Your task to perform on an android device: visit the assistant section in the google photos Image 0: 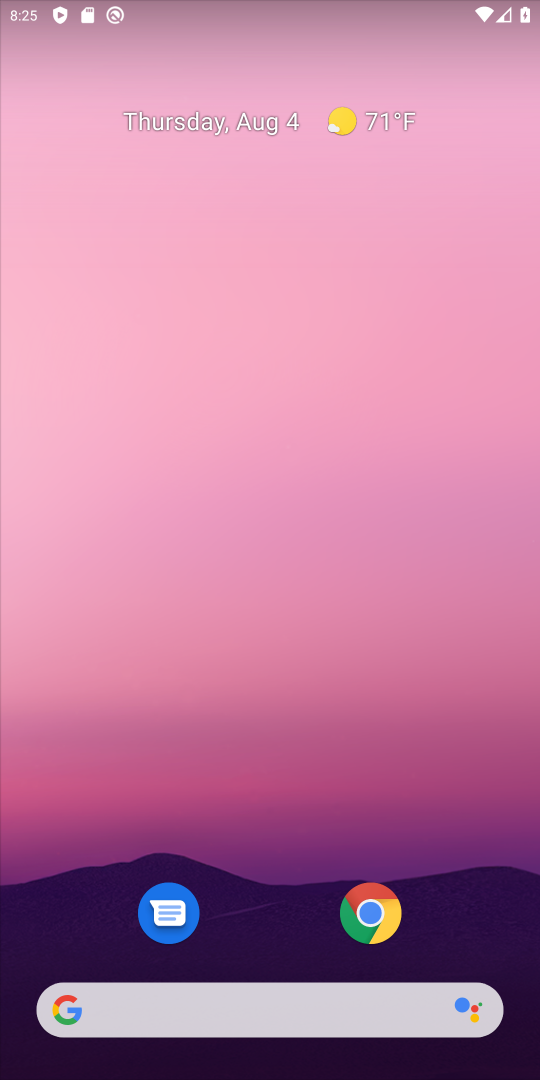
Step 0: drag from (282, 151) to (282, 62)
Your task to perform on an android device: visit the assistant section in the google photos Image 1: 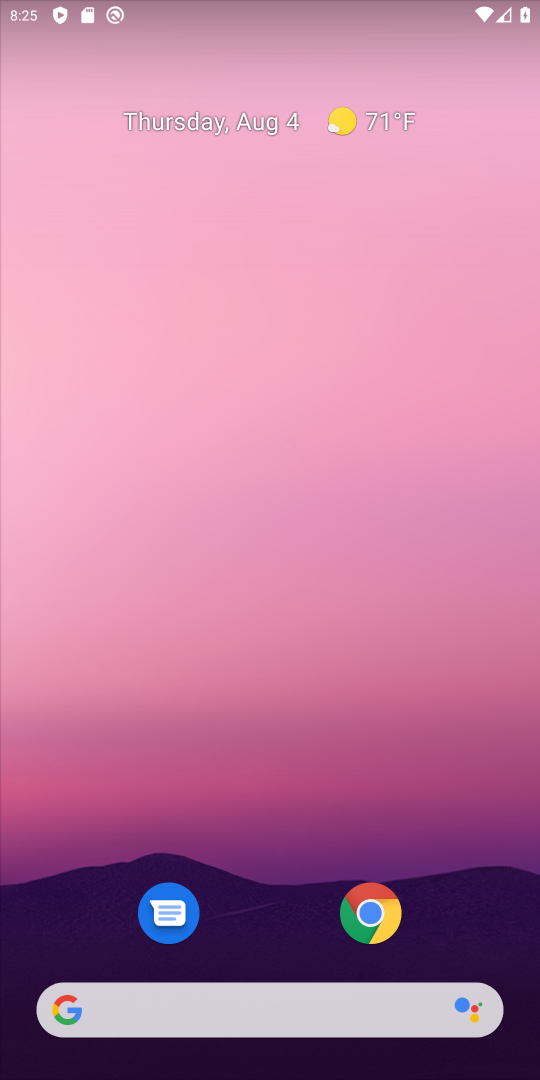
Step 1: drag from (293, 946) to (255, 27)
Your task to perform on an android device: visit the assistant section in the google photos Image 2: 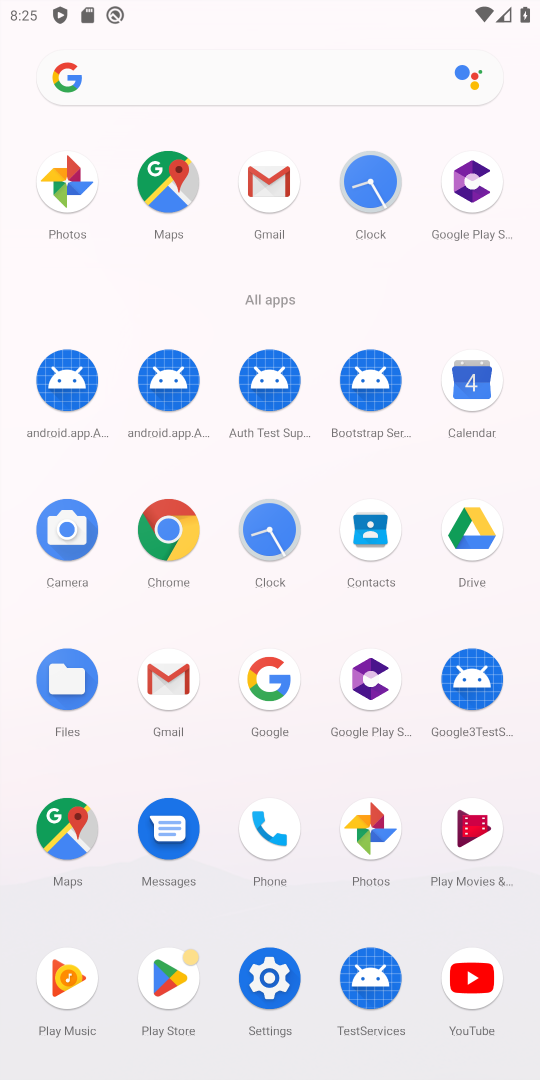
Step 2: click (374, 821)
Your task to perform on an android device: visit the assistant section in the google photos Image 3: 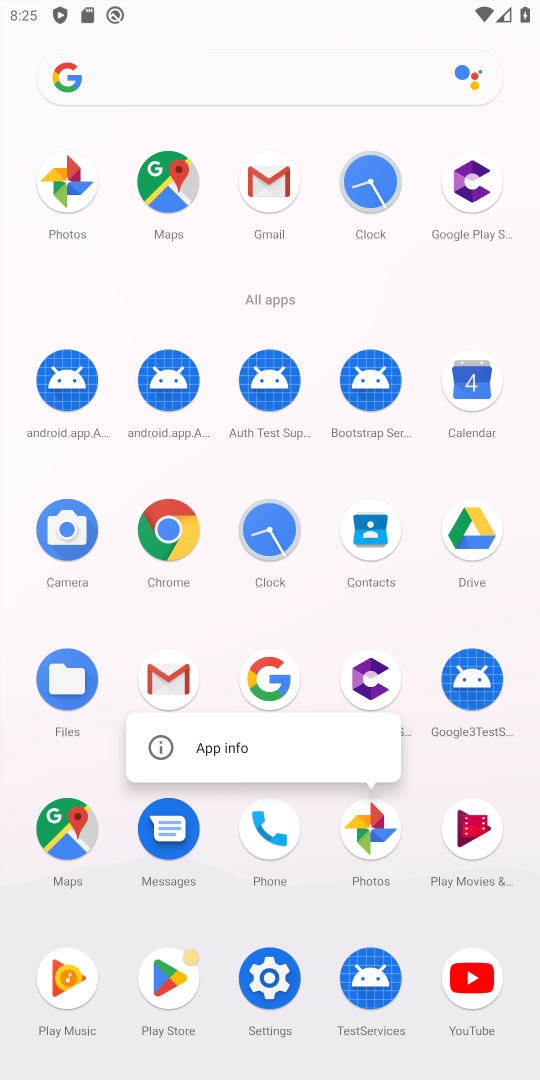
Step 3: click (288, 757)
Your task to perform on an android device: visit the assistant section in the google photos Image 4: 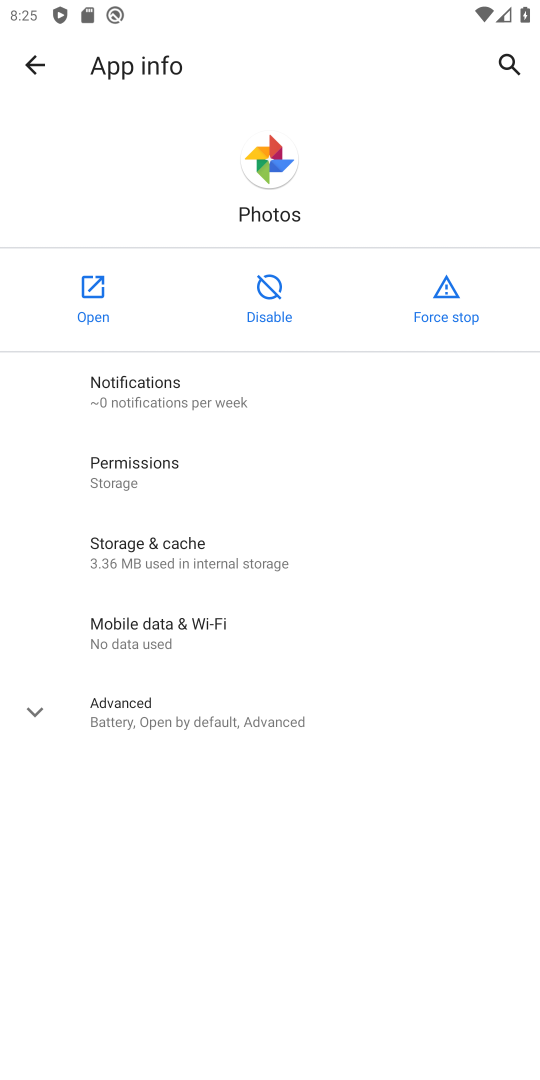
Step 4: click (78, 286)
Your task to perform on an android device: visit the assistant section in the google photos Image 5: 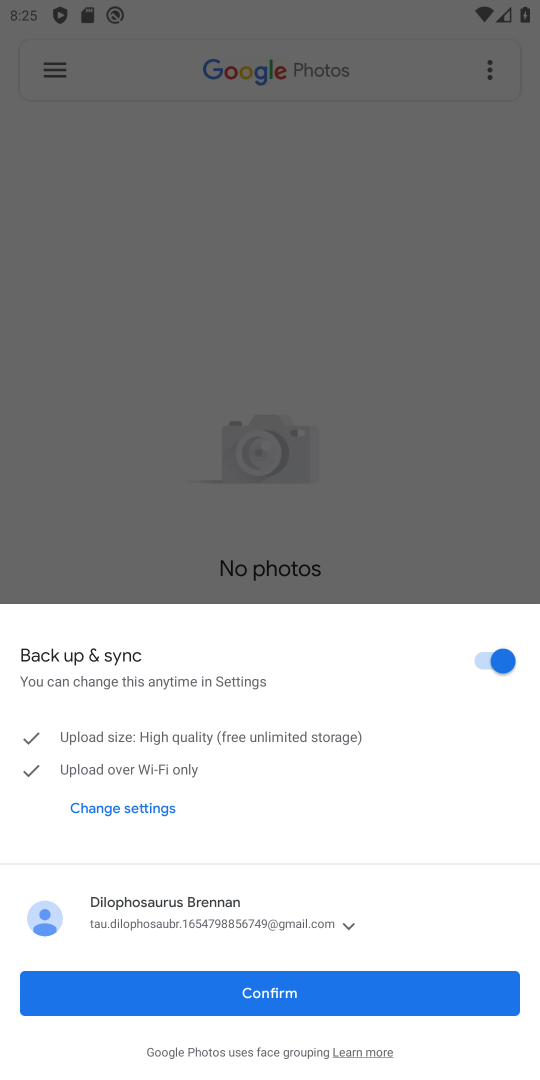
Step 5: click (252, 330)
Your task to perform on an android device: visit the assistant section in the google photos Image 6: 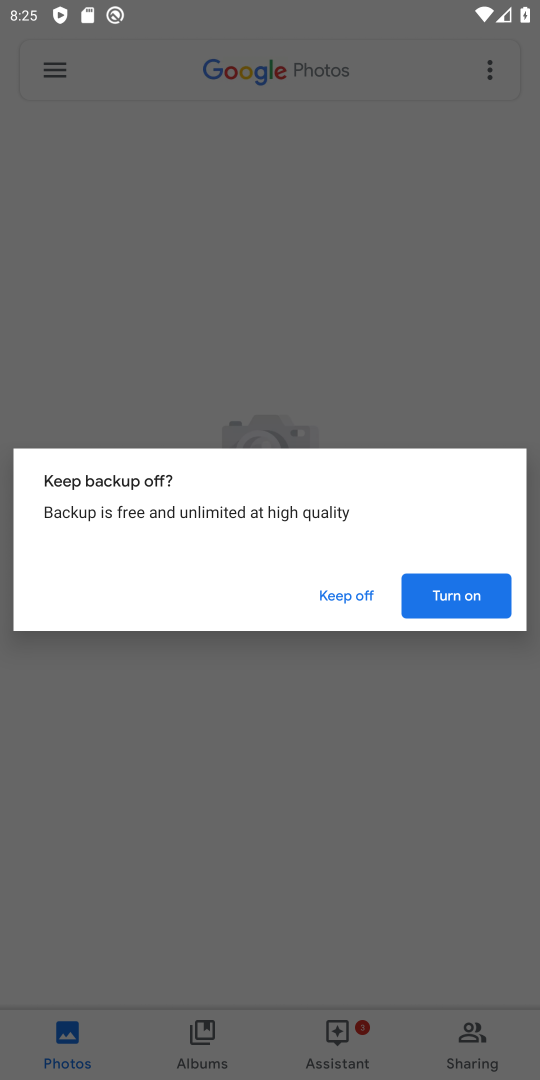
Step 6: click (427, 595)
Your task to perform on an android device: visit the assistant section in the google photos Image 7: 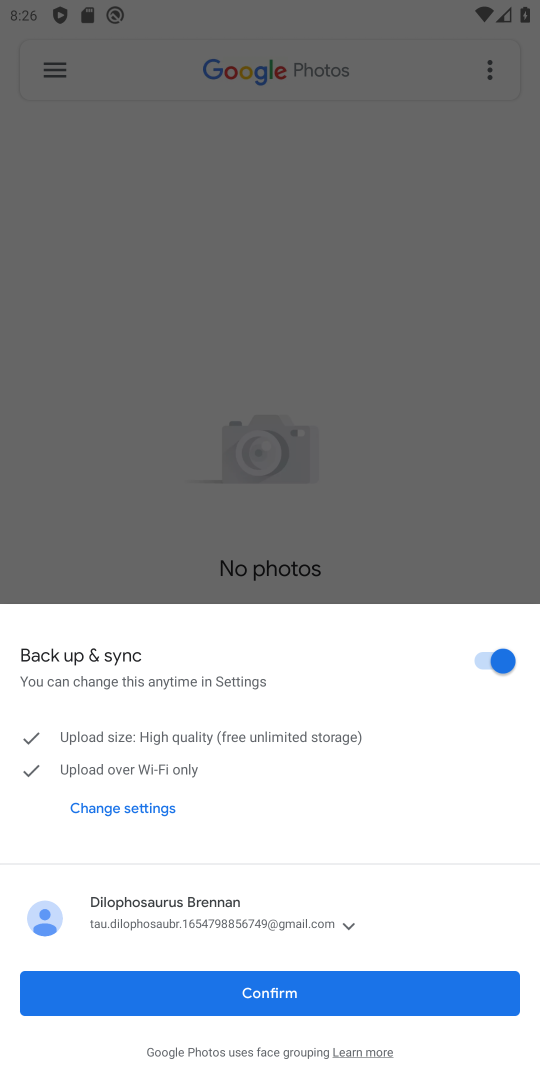
Step 7: click (246, 975)
Your task to perform on an android device: visit the assistant section in the google photos Image 8: 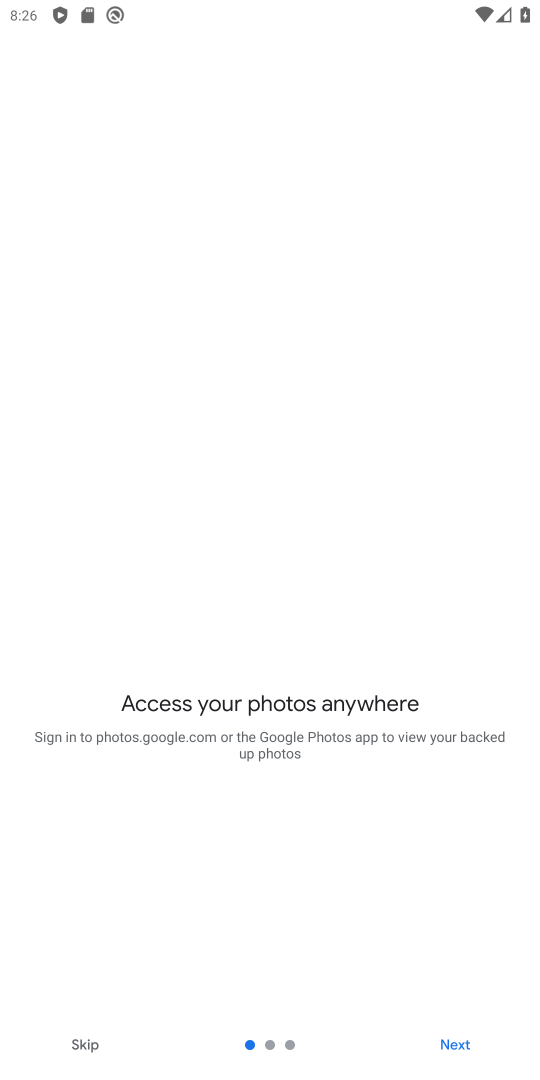
Step 8: click (92, 1035)
Your task to perform on an android device: visit the assistant section in the google photos Image 9: 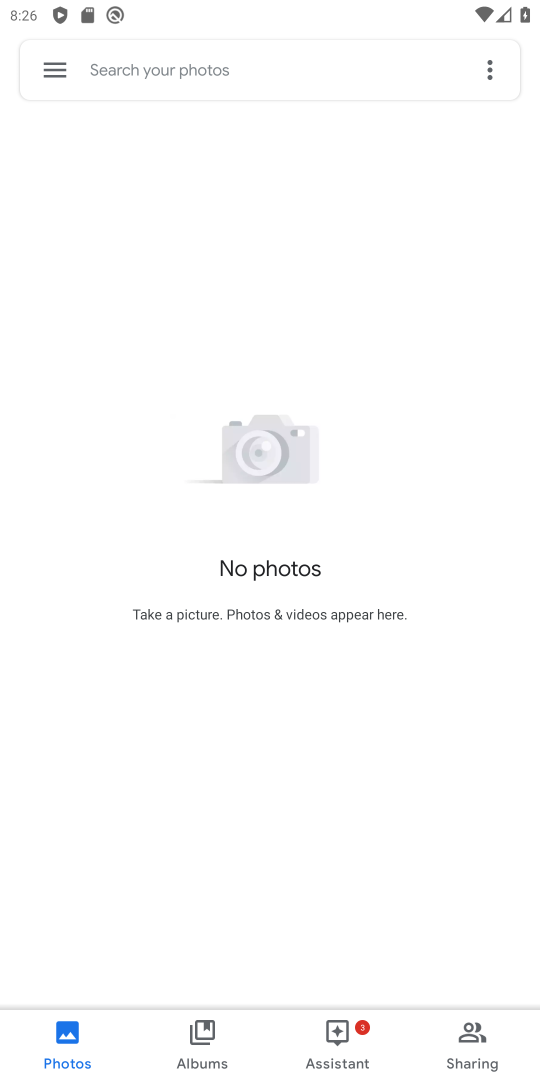
Step 9: click (322, 1039)
Your task to perform on an android device: visit the assistant section in the google photos Image 10: 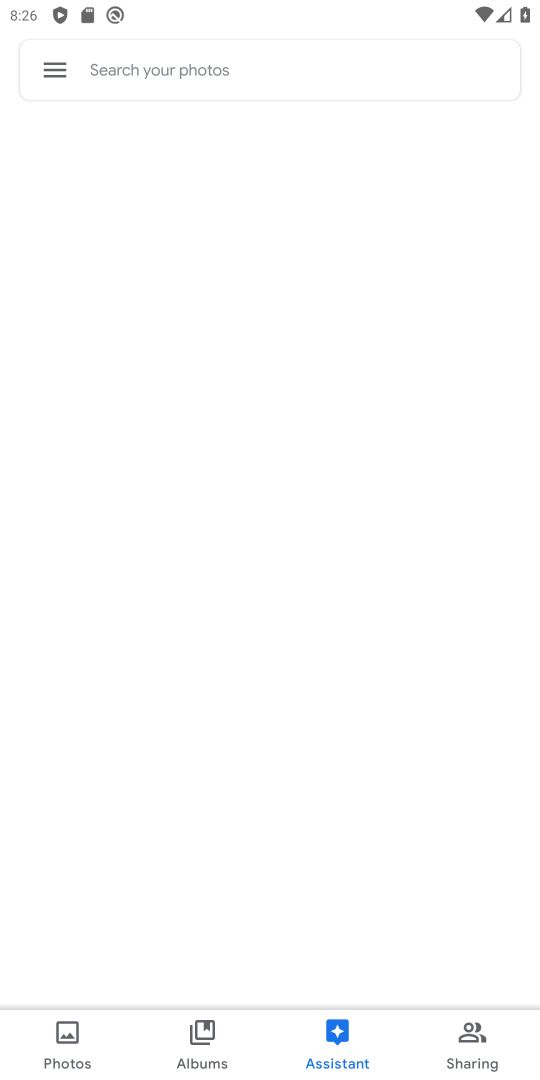
Step 10: task complete